Your task to perform on an android device: turn smart compose on in the gmail app Image 0: 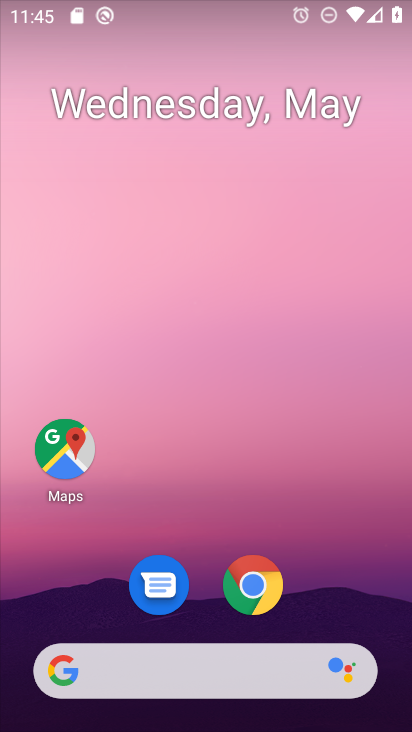
Step 0: drag from (297, 502) to (279, 0)
Your task to perform on an android device: turn smart compose on in the gmail app Image 1: 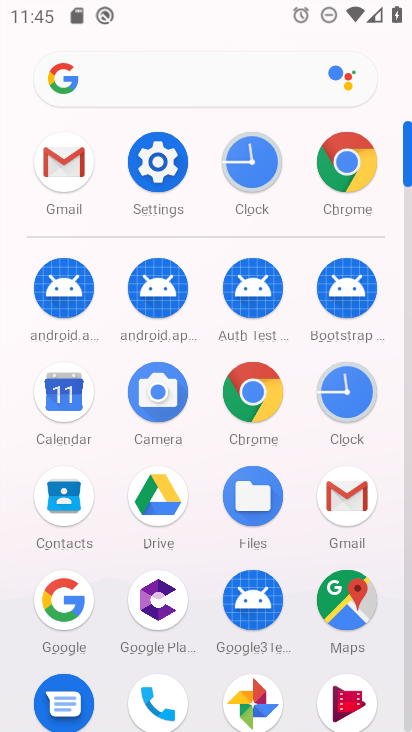
Step 1: click (70, 162)
Your task to perform on an android device: turn smart compose on in the gmail app Image 2: 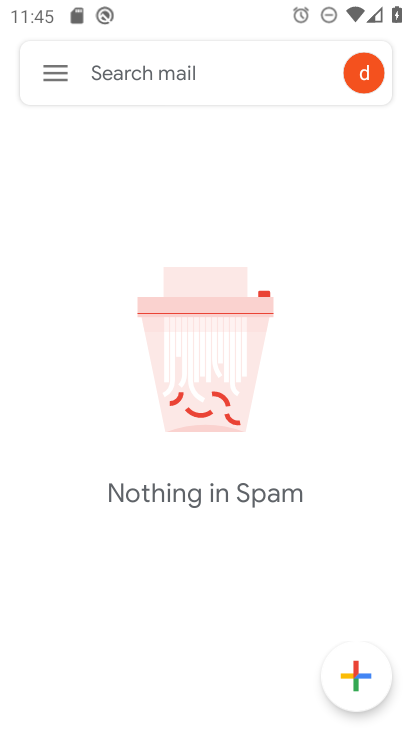
Step 2: click (57, 72)
Your task to perform on an android device: turn smart compose on in the gmail app Image 3: 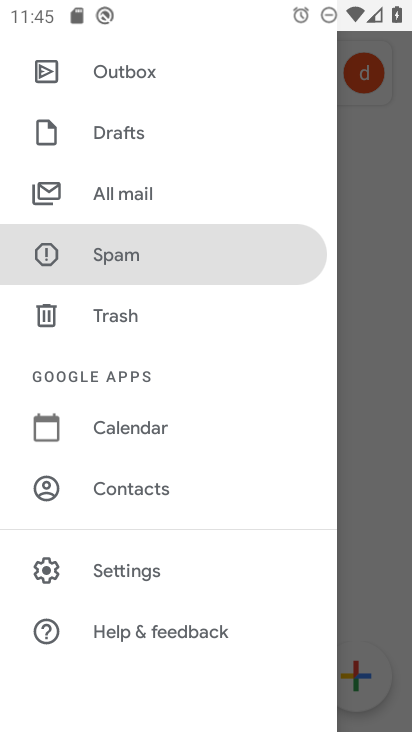
Step 3: click (147, 568)
Your task to perform on an android device: turn smart compose on in the gmail app Image 4: 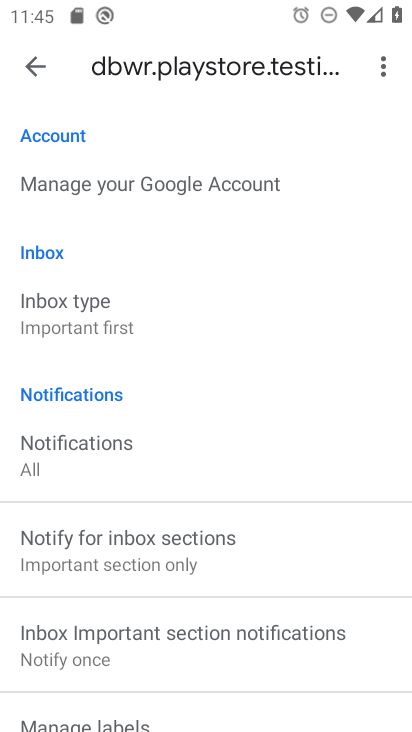
Step 4: task complete